Your task to perform on an android device: Open calendar and show me the first week of next month Image 0: 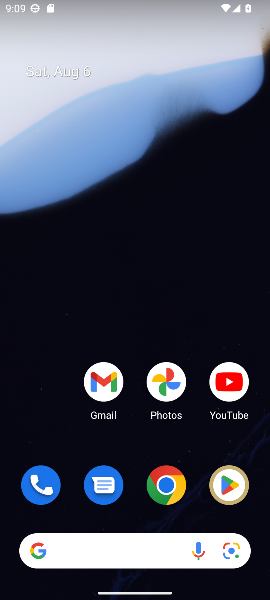
Step 0: drag from (139, 440) to (183, 6)
Your task to perform on an android device: Open calendar and show me the first week of next month Image 1: 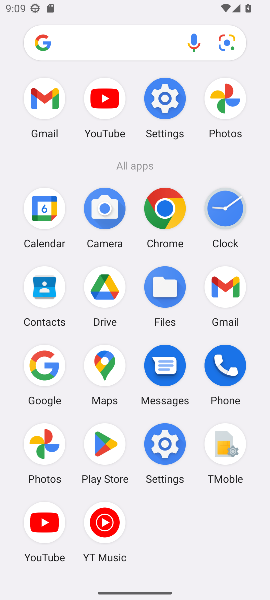
Step 1: click (48, 210)
Your task to perform on an android device: Open calendar and show me the first week of next month Image 2: 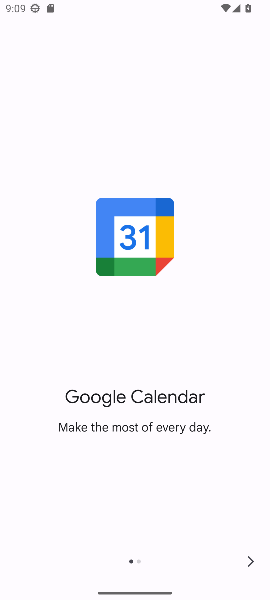
Step 2: click (246, 562)
Your task to perform on an android device: Open calendar and show me the first week of next month Image 3: 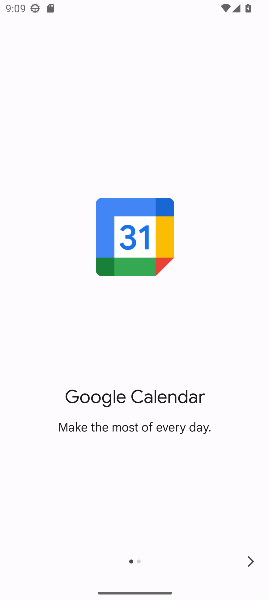
Step 3: click (246, 562)
Your task to perform on an android device: Open calendar and show me the first week of next month Image 4: 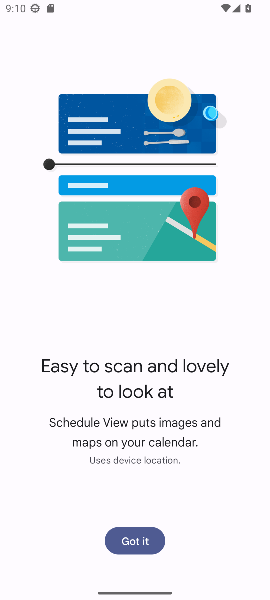
Step 4: click (136, 542)
Your task to perform on an android device: Open calendar and show me the first week of next month Image 5: 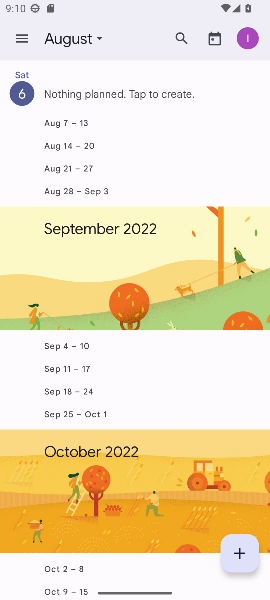
Step 5: click (58, 33)
Your task to perform on an android device: Open calendar and show me the first week of next month Image 6: 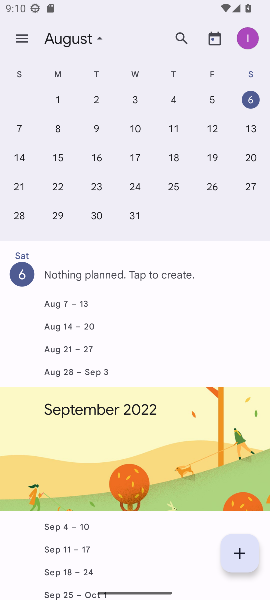
Step 6: drag from (248, 188) to (5, 31)
Your task to perform on an android device: Open calendar and show me the first week of next month Image 7: 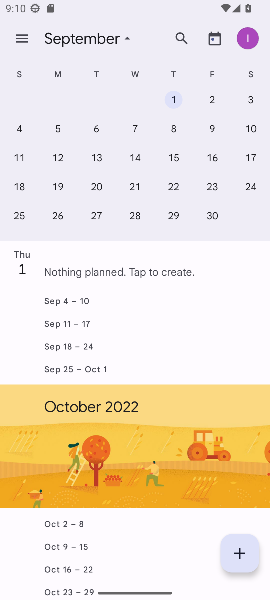
Step 7: click (130, 121)
Your task to perform on an android device: Open calendar and show me the first week of next month Image 8: 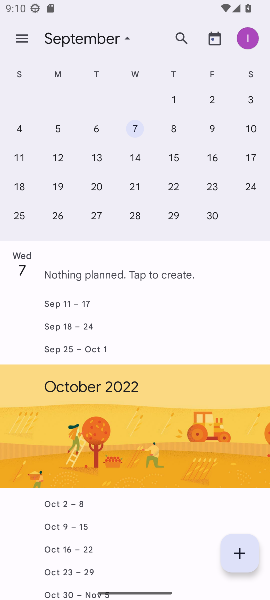
Step 8: click (24, 27)
Your task to perform on an android device: Open calendar and show me the first week of next month Image 9: 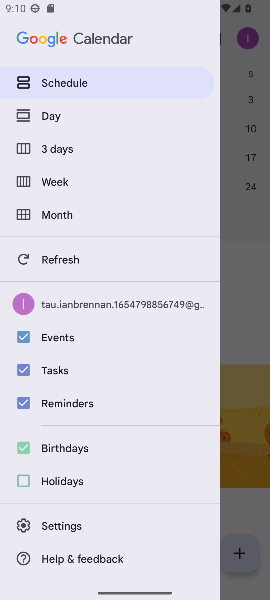
Step 9: click (57, 180)
Your task to perform on an android device: Open calendar and show me the first week of next month Image 10: 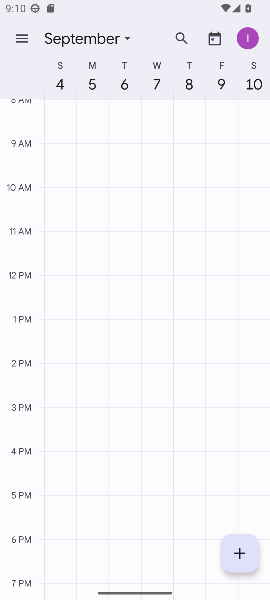
Step 10: task complete